Your task to perform on an android device: Open the web browser Image 0: 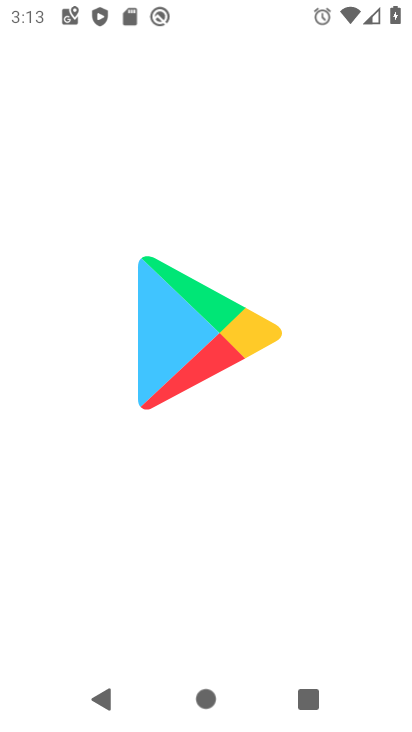
Step 0: drag from (209, 554) to (190, 149)
Your task to perform on an android device: Open the web browser Image 1: 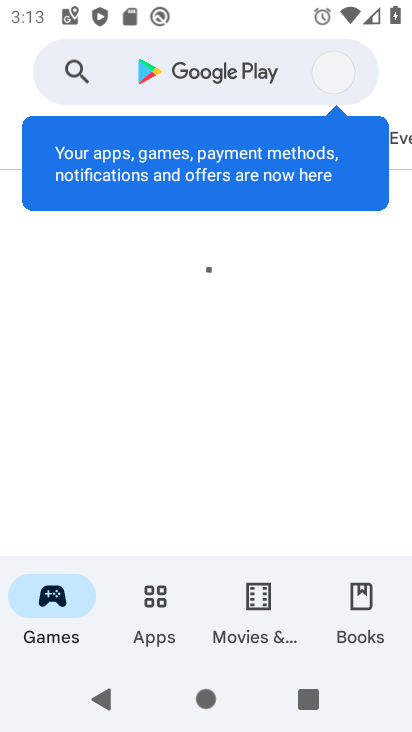
Step 1: press home button
Your task to perform on an android device: Open the web browser Image 2: 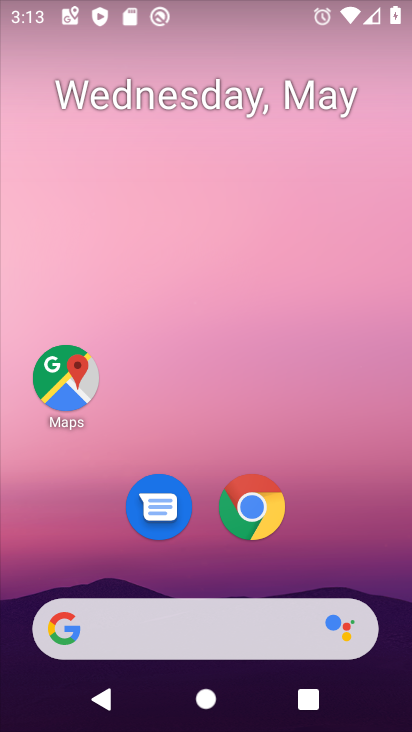
Step 2: drag from (189, 567) to (226, 75)
Your task to perform on an android device: Open the web browser Image 3: 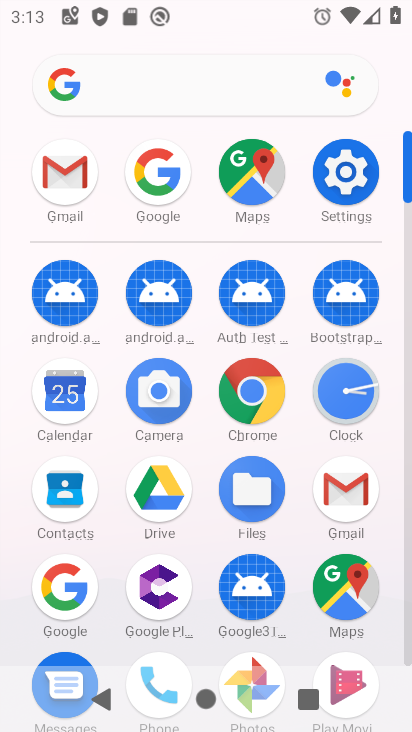
Step 3: click (76, 595)
Your task to perform on an android device: Open the web browser Image 4: 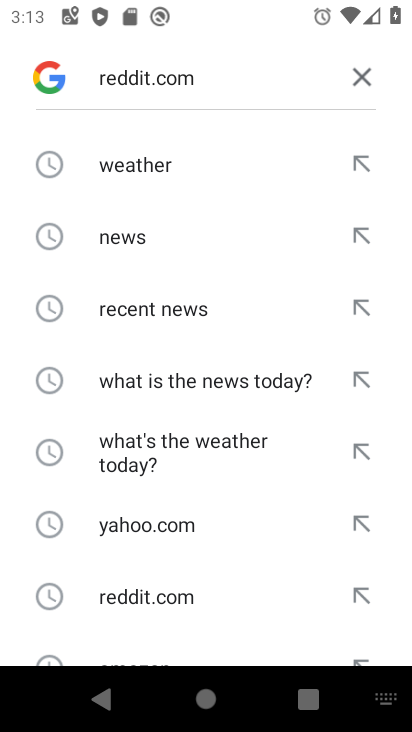
Step 4: click (354, 73)
Your task to perform on an android device: Open the web browser Image 5: 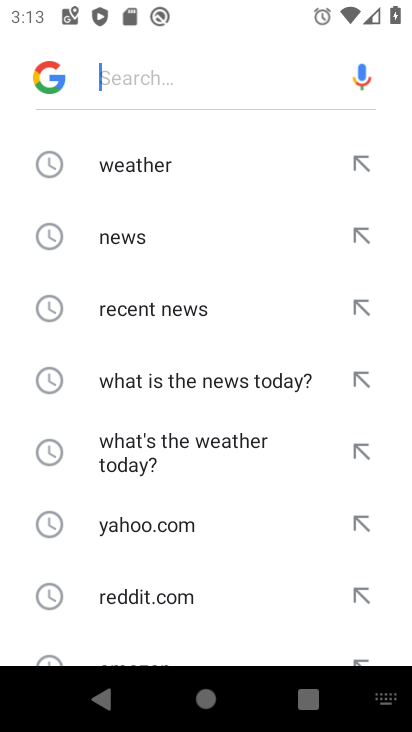
Step 5: task complete